Your task to perform on an android device: Open location settings Image 0: 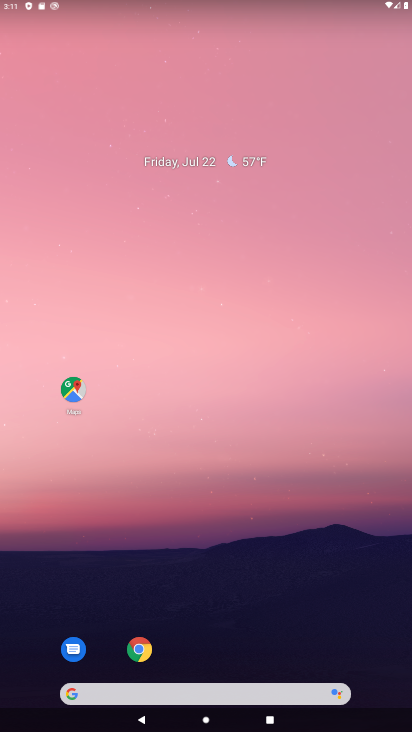
Step 0: drag from (29, 683) to (133, 251)
Your task to perform on an android device: Open location settings Image 1: 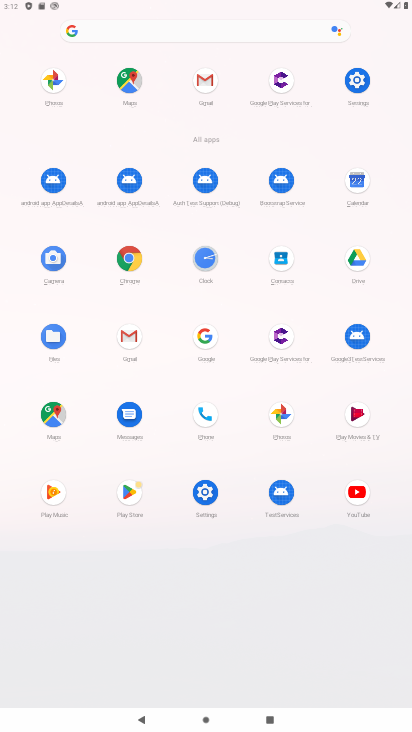
Step 1: click (215, 482)
Your task to perform on an android device: Open location settings Image 2: 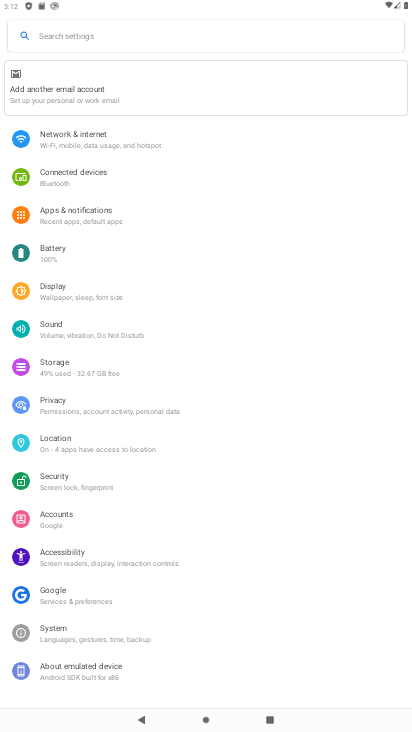
Step 2: click (67, 438)
Your task to perform on an android device: Open location settings Image 3: 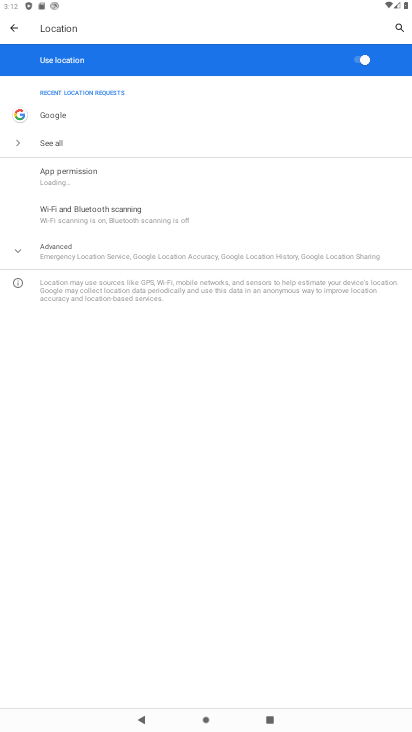
Step 3: click (68, 446)
Your task to perform on an android device: Open location settings Image 4: 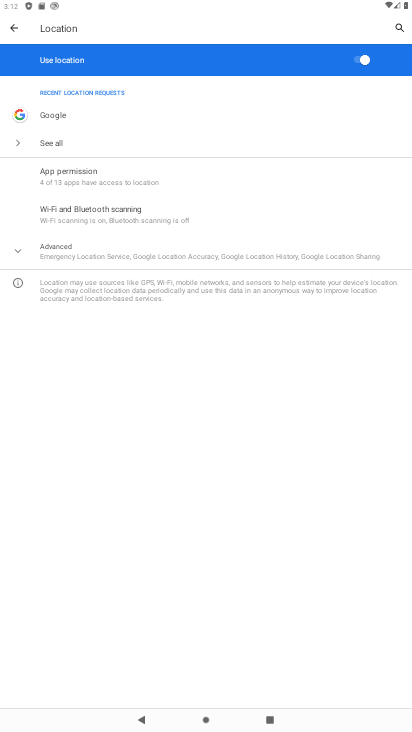
Step 4: task complete